Your task to perform on an android device: set default search engine in the chrome app Image 0: 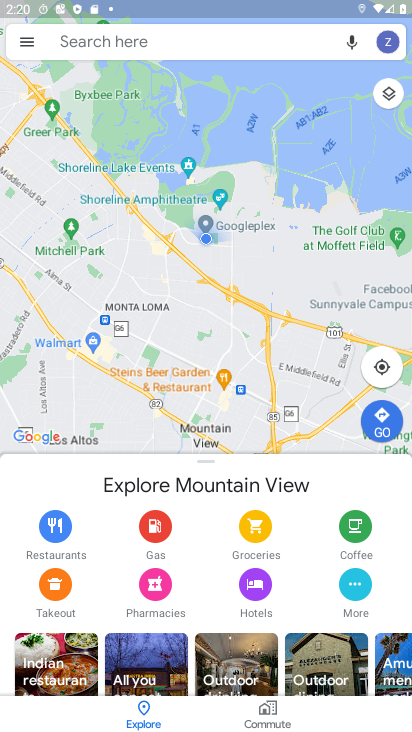
Step 0: press home button
Your task to perform on an android device: set default search engine in the chrome app Image 1: 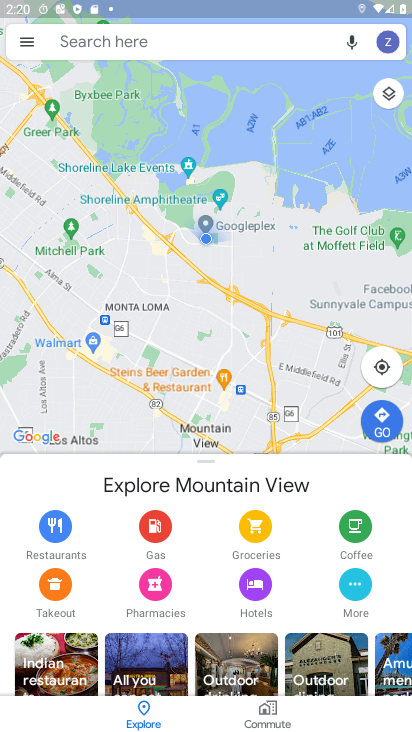
Step 1: drag from (298, 351) to (249, 9)
Your task to perform on an android device: set default search engine in the chrome app Image 2: 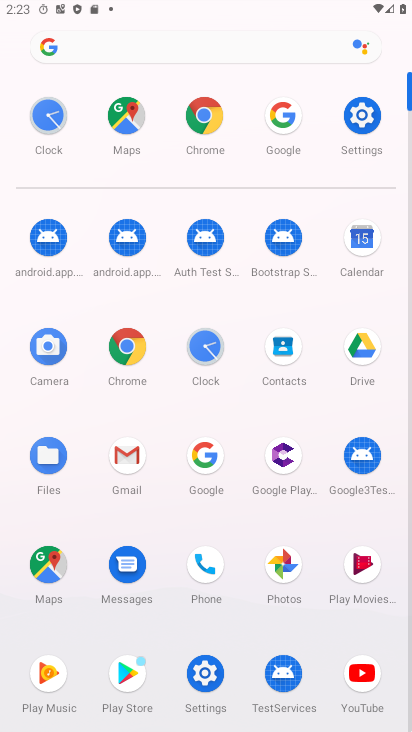
Step 2: click (124, 335)
Your task to perform on an android device: set default search engine in the chrome app Image 3: 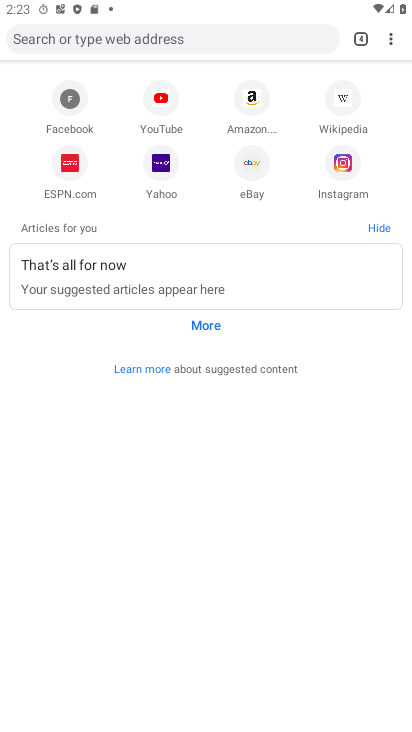
Step 3: click (388, 35)
Your task to perform on an android device: set default search engine in the chrome app Image 4: 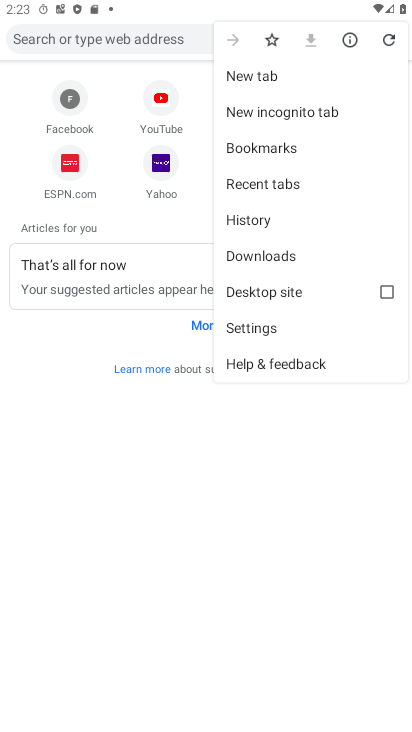
Step 4: click (259, 336)
Your task to perform on an android device: set default search engine in the chrome app Image 5: 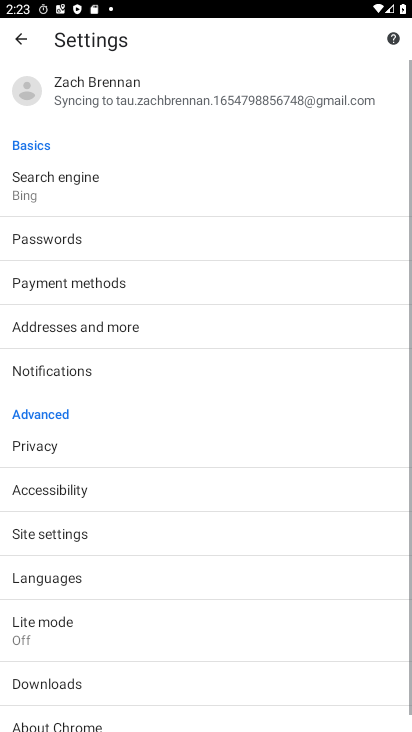
Step 5: click (48, 197)
Your task to perform on an android device: set default search engine in the chrome app Image 6: 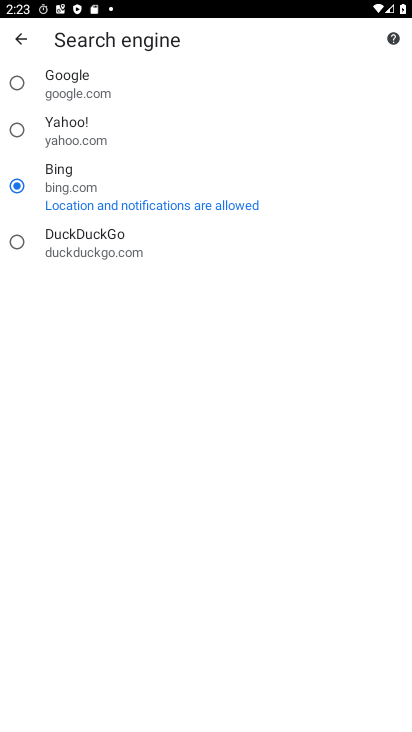
Step 6: click (64, 94)
Your task to perform on an android device: set default search engine in the chrome app Image 7: 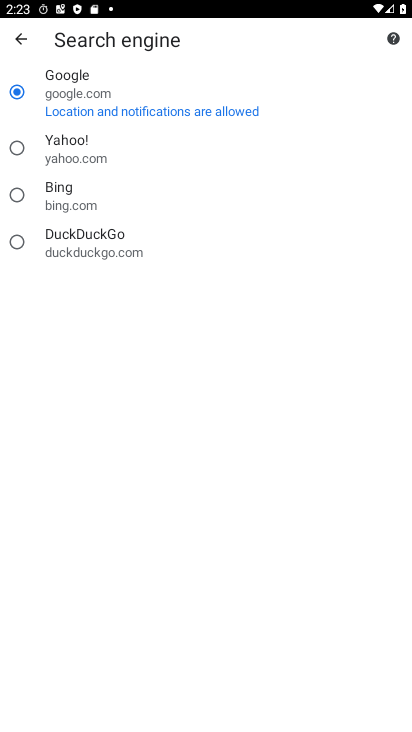
Step 7: task complete